Your task to perform on an android device: change timer sound Image 0: 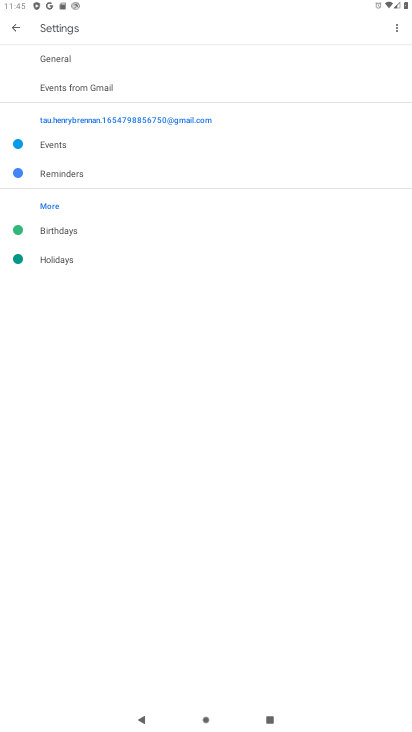
Step 0: press home button
Your task to perform on an android device: change timer sound Image 1: 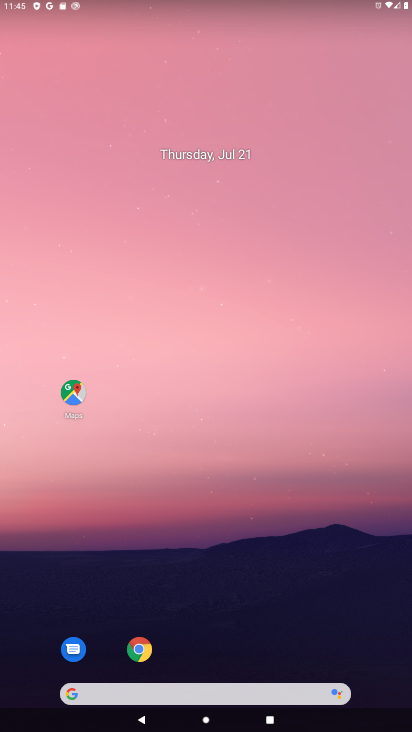
Step 1: drag from (304, 598) to (225, 71)
Your task to perform on an android device: change timer sound Image 2: 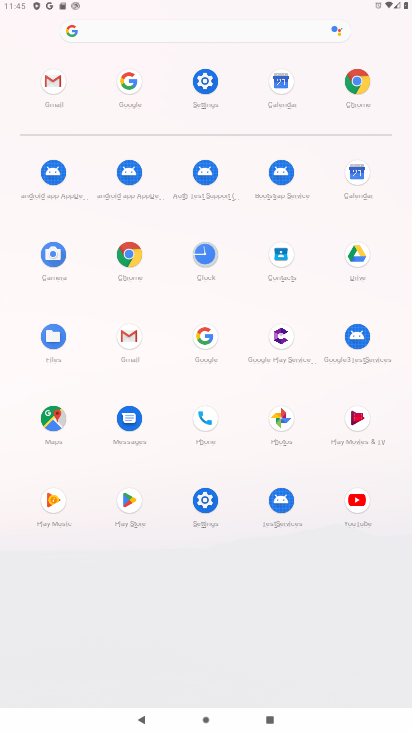
Step 2: click (210, 258)
Your task to perform on an android device: change timer sound Image 3: 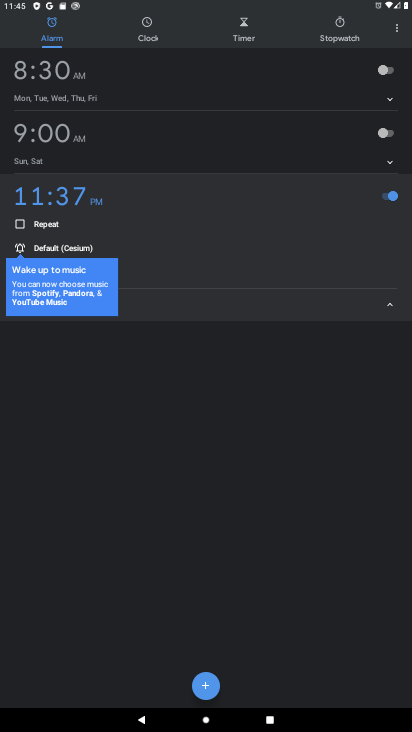
Step 3: click (397, 27)
Your task to perform on an android device: change timer sound Image 4: 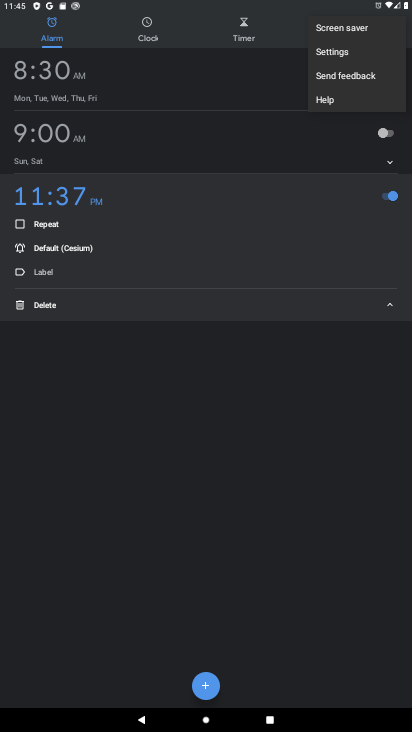
Step 4: click (340, 51)
Your task to perform on an android device: change timer sound Image 5: 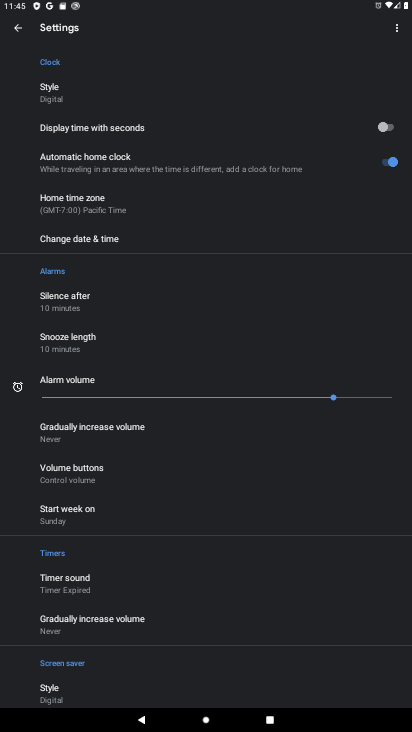
Step 5: click (85, 591)
Your task to perform on an android device: change timer sound Image 6: 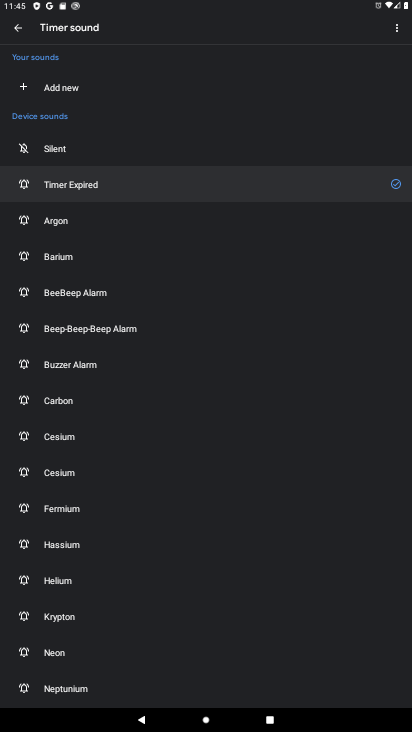
Step 6: click (50, 225)
Your task to perform on an android device: change timer sound Image 7: 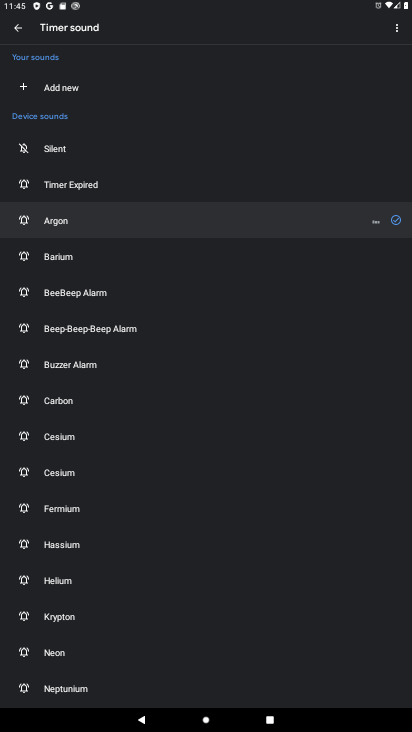
Step 7: task complete